Your task to perform on an android device: Search for pizza restaurants on Maps Image 0: 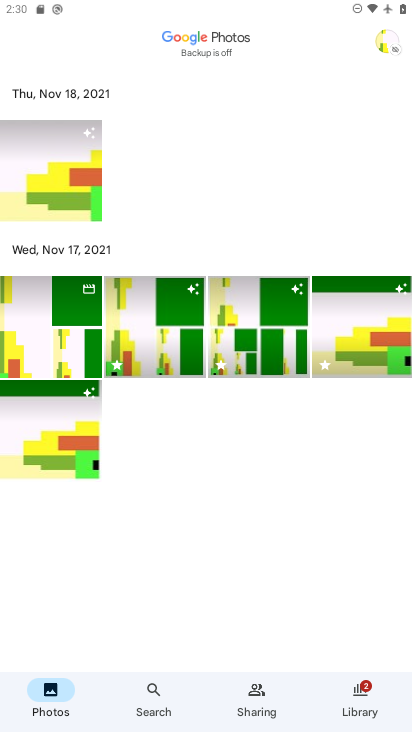
Step 0: press home button
Your task to perform on an android device: Search for pizza restaurants on Maps Image 1: 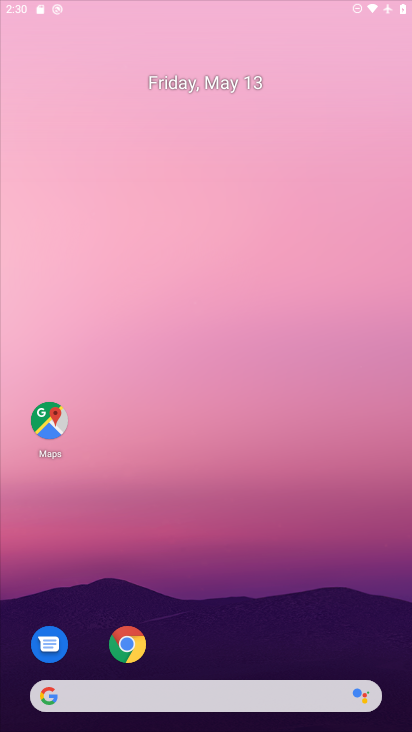
Step 1: drag from (322, 606) to (249, 18)
Your task to perform on an android device: Search for pizza restaurants on Maps Image 2: 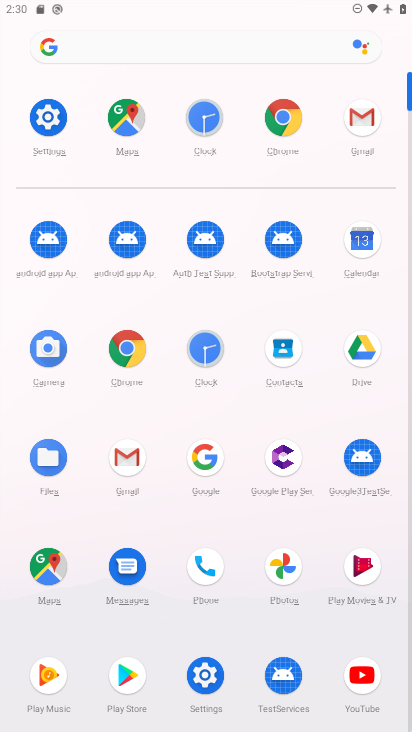
Step 2: click (53, 569)
Your task to perform on an android device: Search for pizza restaurants on Maps Image 3: 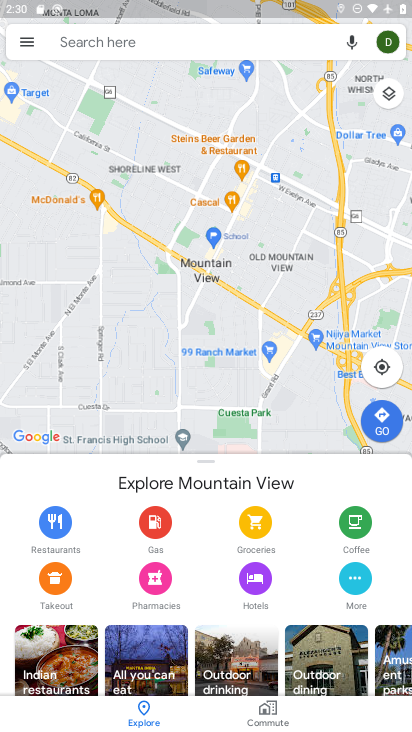
Step 3: click (151, 45)
Your task to perform on an android device: Search for pizza restaurants on Maps Image 4: 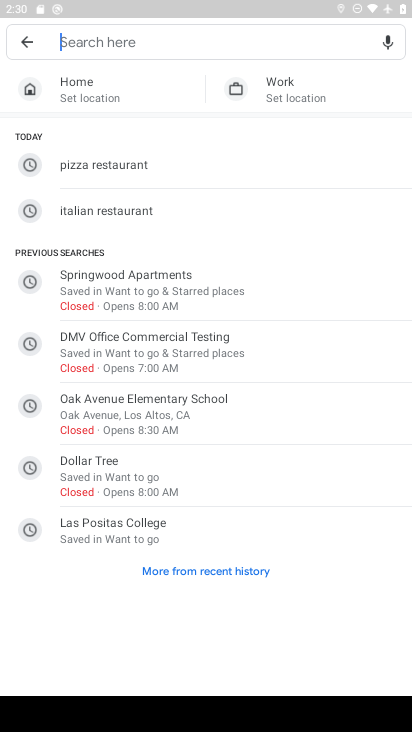
Step 4: click (104, 172)
Your task to perform on an android device: Search for pizza restaurants on Maps Image 5: 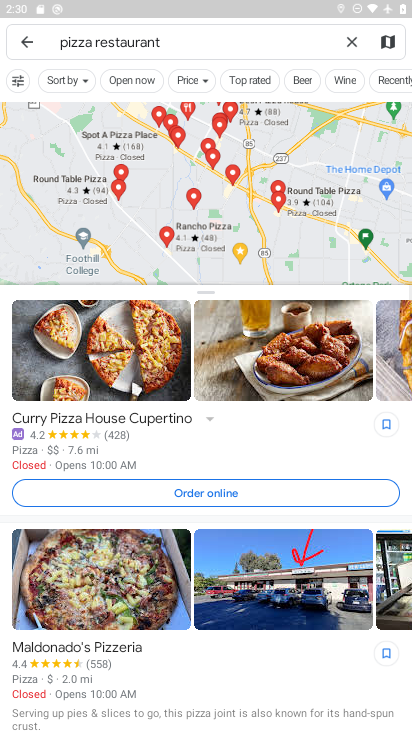
Step 5: task complete